Your task to perform on an android device: allow cookies in the chrome app Image 0: 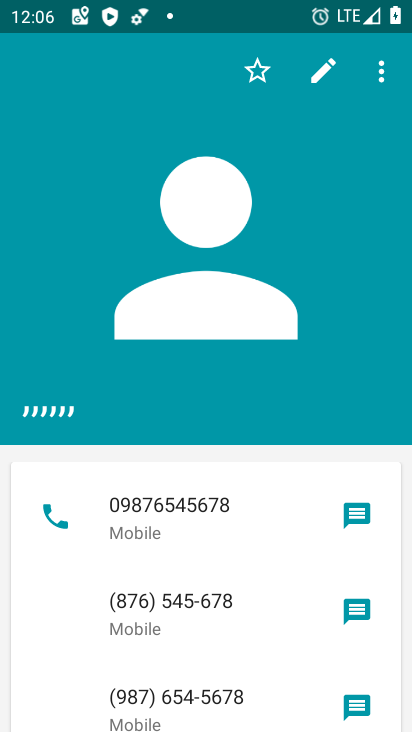
Step 0: press home button
Your task to perform on an android device: allow cookies in the chrome app Image 1: 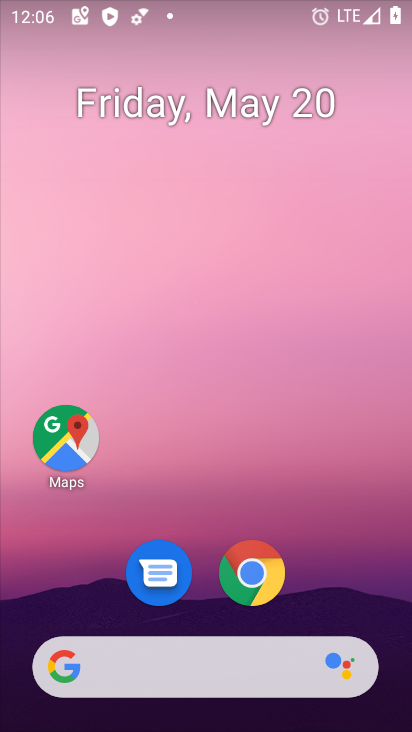
Step 1: click (267, 559)
Your task to perform on an android device: allow cookies in the chrome app Image 2: 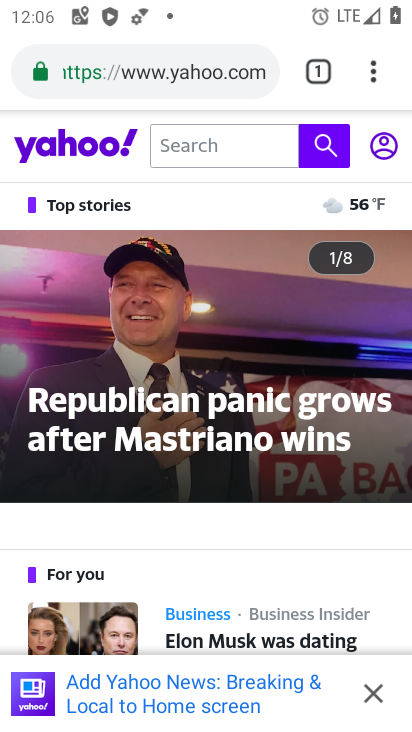
Step 2: click (375, 72)
Your task to perform on an android device: allow cookies in the chrome app Image 3: 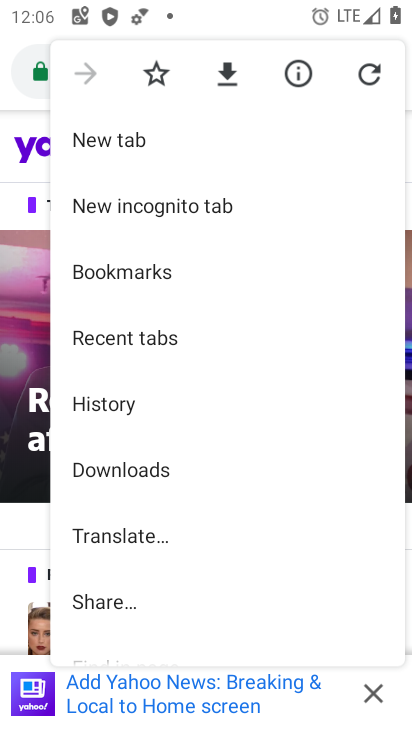
Step 3: drag from (158, 560) to (209, 240)
Your task to perform on an android device: allow cookies in the chrome app Image 4: 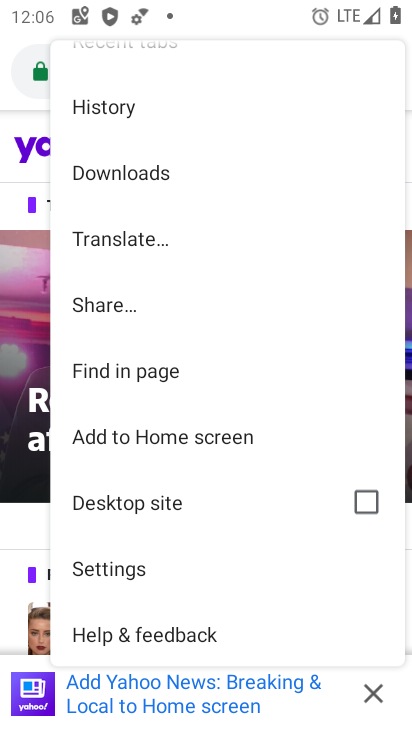
Step 4: click (107, 569)
Your task to perform on an android device: allow cookies in the chrome app Image 5: 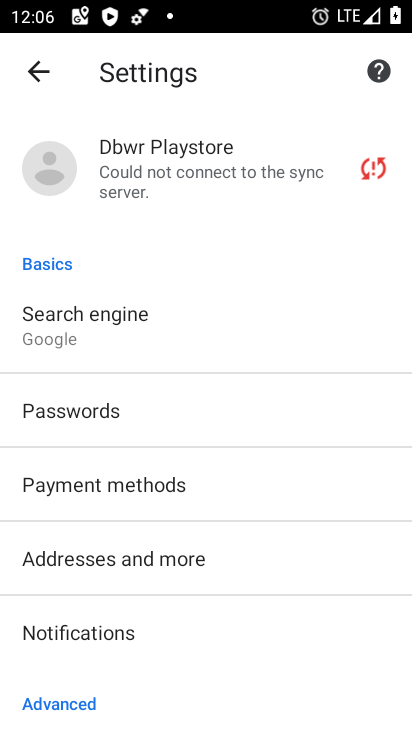
Step 5: drag from (152, 534) to (172, 215)
Your task to perform on an android device: allow cookies in the chrome app Image 6: 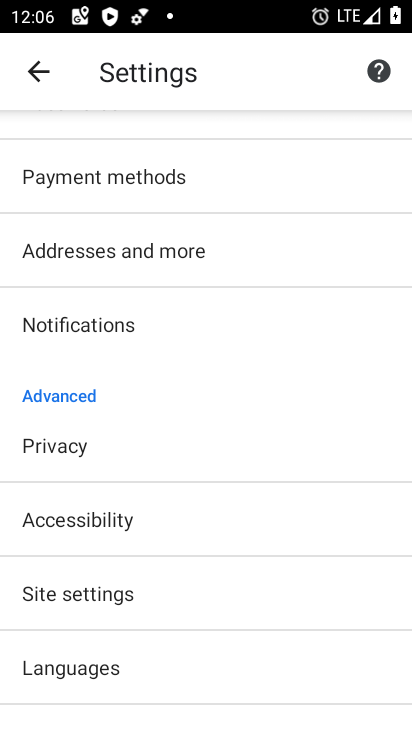
Step 6: drag from (92, 586) to (117, 223)
Your task to perform on an android device: allow cookies in the chrome app Image 7: 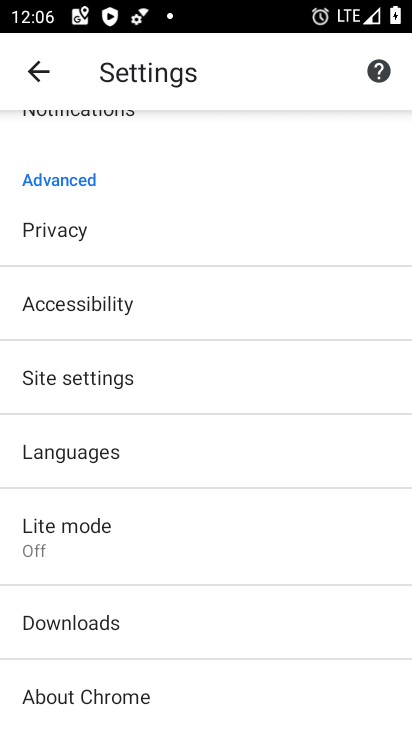
Step 7: drag from (81, 462) to (79, 546)
Your task to perform on an android device: allow cookies in the chrome app Image 8: 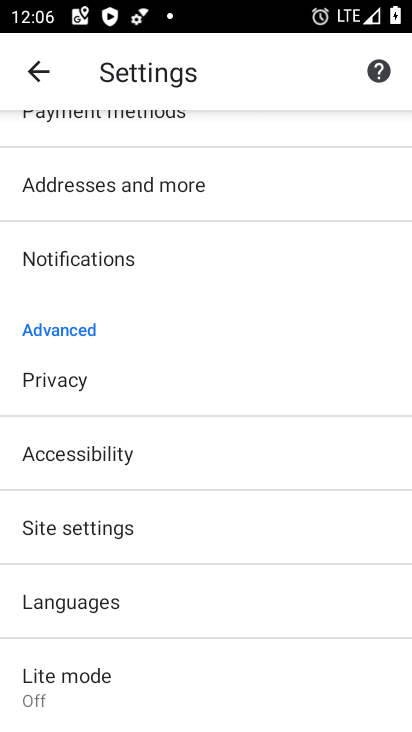
Step 8: click (93, 542)
Your task to perform on an android device: allow cookies in the chrome app Image 9: 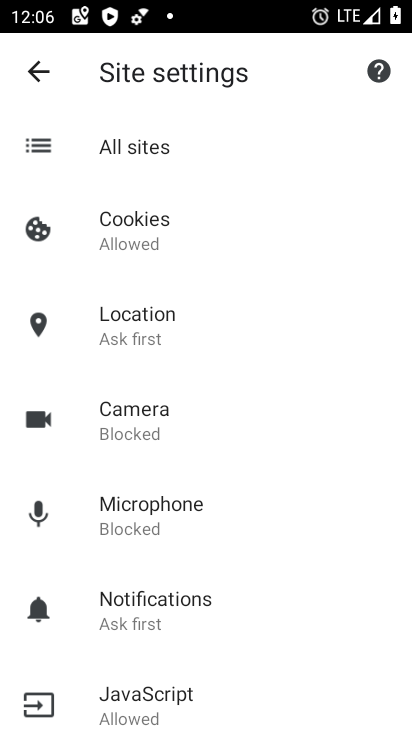
Step 9: click (191, 219)
Your task to perform on an android device: allow cookies in the chrome app Image 10: 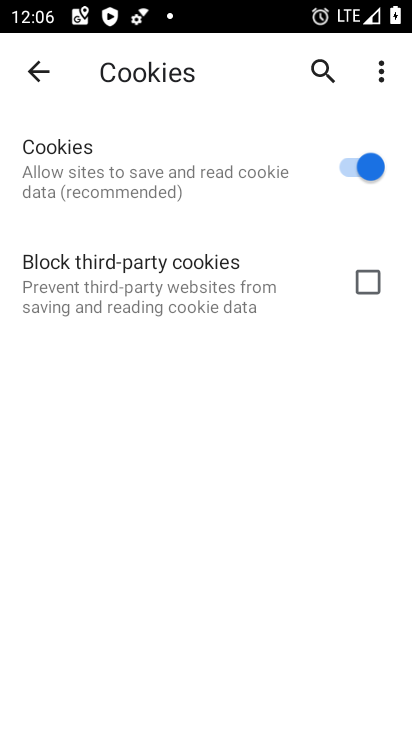
Step 10: task complete